Your task to perform on an android device: Open Youtube and go to the subscriptions tab Image 0: 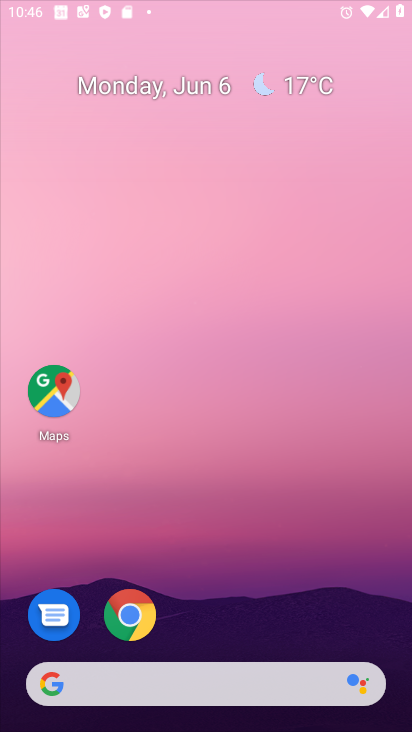
Step 0: press home button
Your task to perform on an android device: Open Youtube and go to the subscriptions tab Image 1: 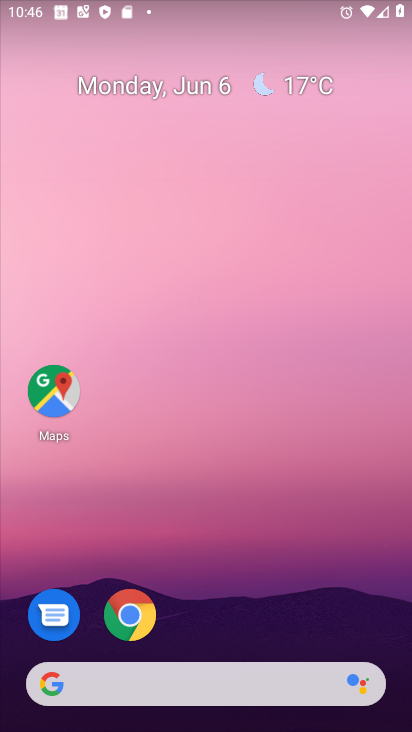
Step 1: drag from (209, 640) to (209, 30)
Your task to perform on an android device: Open Youtube and go to the subscriptions tab Image 2: 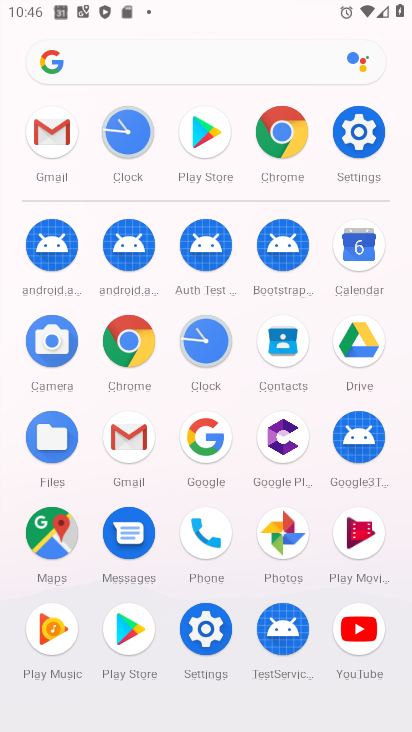
Step 2: click (358, 621)
Your task to perform on an android device: Open Youtube and go to the subscriptions tab Image 3: 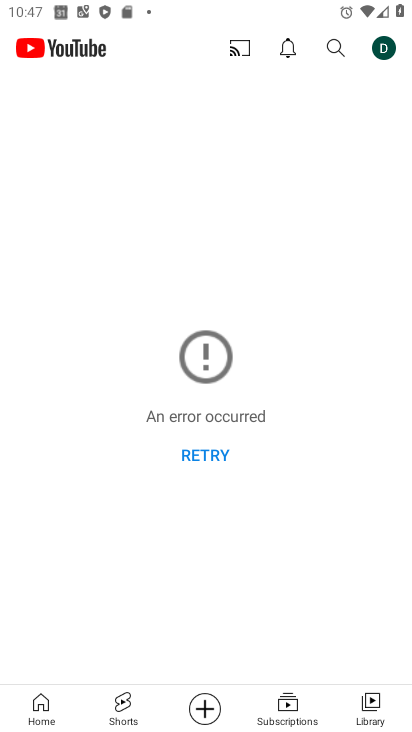
Step 3: click (285, 698)
Your task to perform on an android device: Open Youtube and go to the subscriptions tab Image 4: 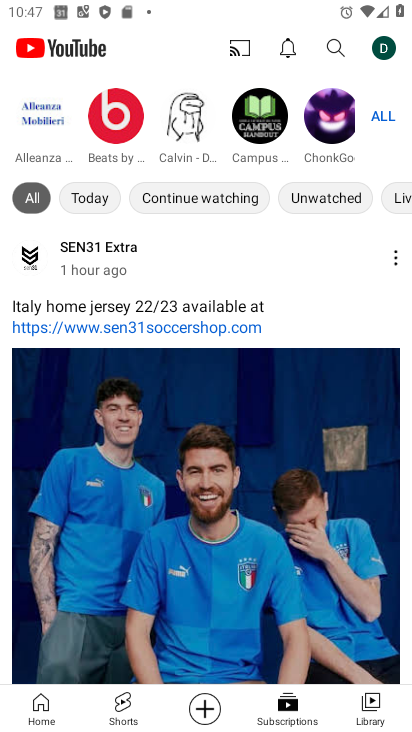
Step 4: task complete